Your task to perform on an android device: turn on improve location accuracy Image 0: 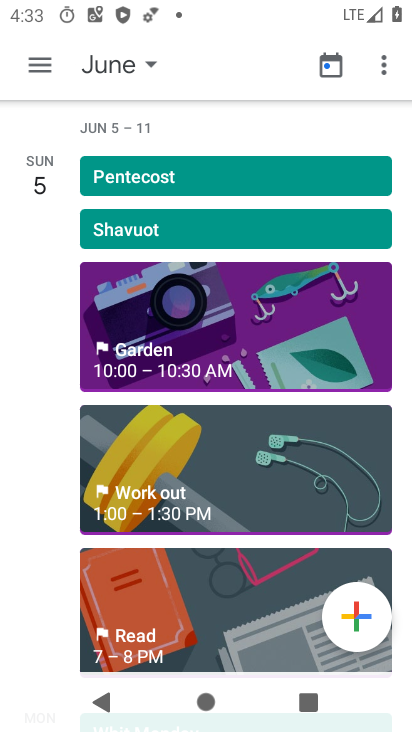
Step 0: press home button
Your task to perform on an android device: turn on improve location accuracy Image 1: 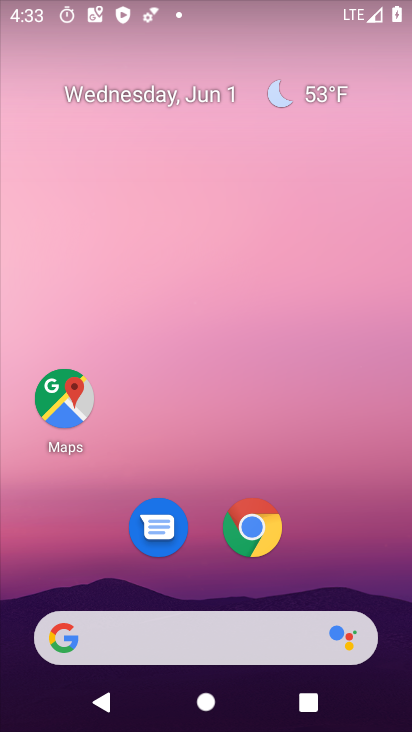
Step 1: drag from (329, 549) to (321, 58)
Your task to perform on an android device: turn on improve location accuracy Image 2: 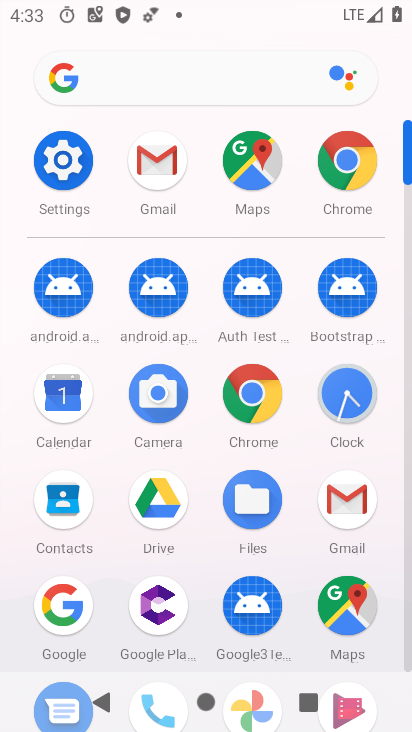
Step 2: click (56, 160)
Your task to perform on an android device: turn on improve location accuracy Image 3: 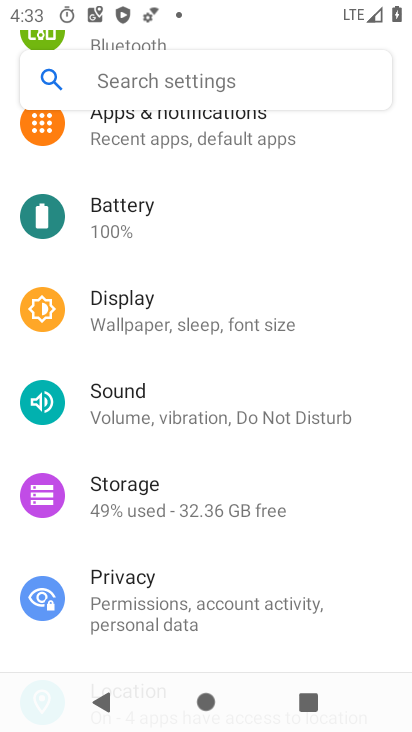
Step 3: drag from (272, 254) to (240, 488)
Your task to perform on an android device: turn on improve location accuracy Image 4: 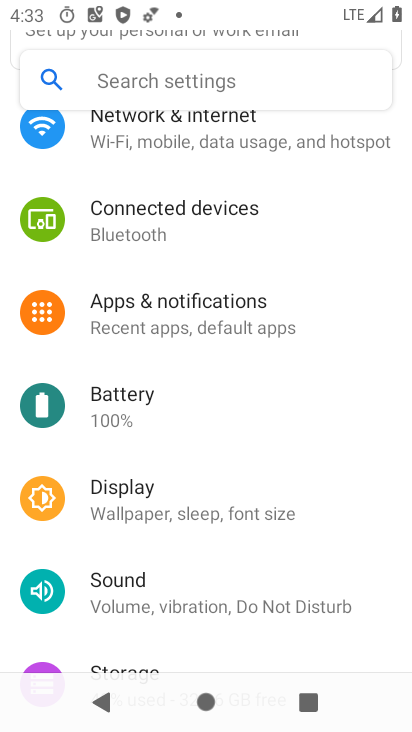
Step 4: drag from (219, 254) to (224, 202)
Your task to perform on an android device: turn on improve location accuracy Image 5: 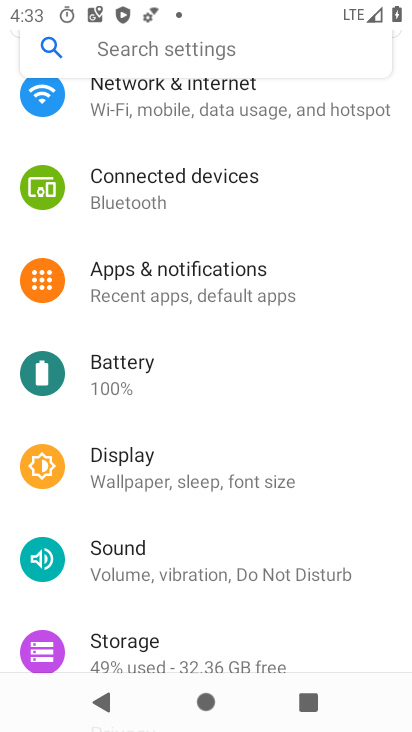
Step 5: drag from (283, 558) to (281, 244)
Your task to perform on an android device: turn on improve location accuracy Image 6: 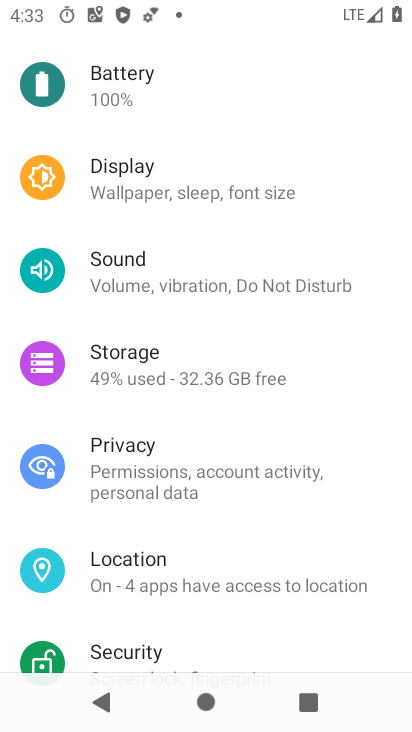
Step 6: click (156, 565)
Your task to perform on an android device: turn on improve location accuracy Image 7: 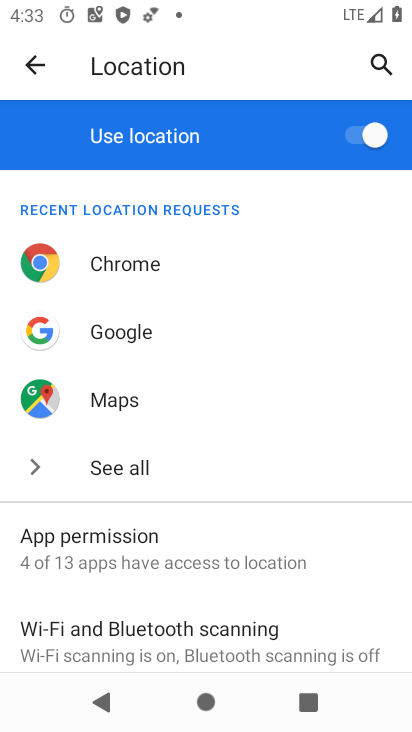
Step 7: task complete